Your task to perform on an android device: change the clock display to show seconds Image 0: 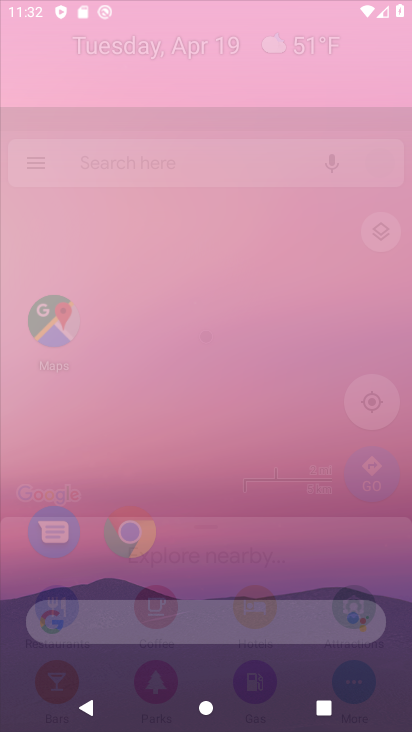
Step 0: click (216, 613)
Your task to perform on an android device: change the clock display to show seconds Image 1: 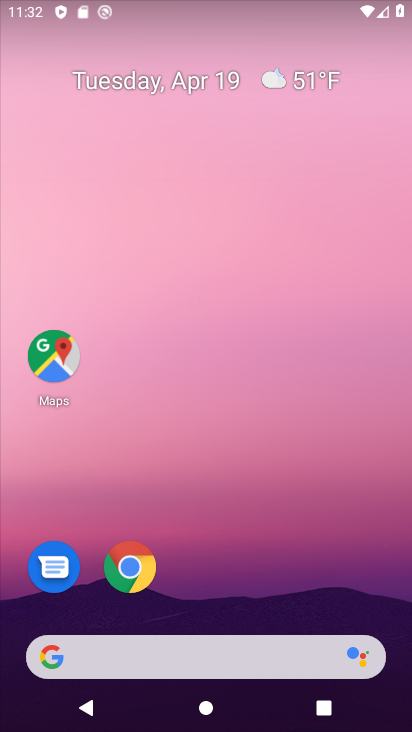
Step 1: drag from (206, 602) to (389, 9)
Your task to perform on an android device: change the clock display to show seconds Image 2: 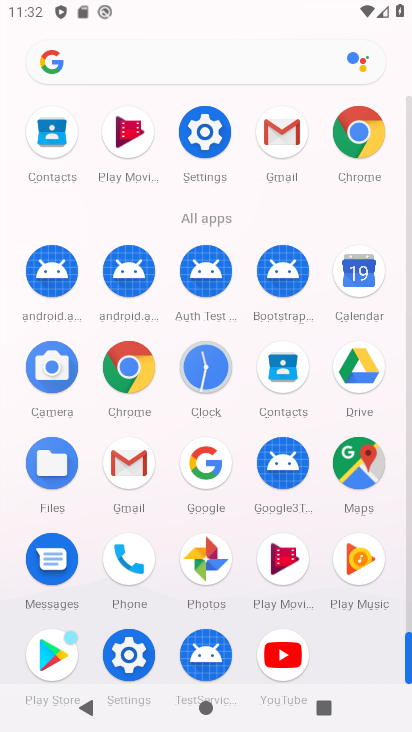
Step 2: click (209, 365)
Your task to perform on an android device: change the clock display to show seconds Image 3: 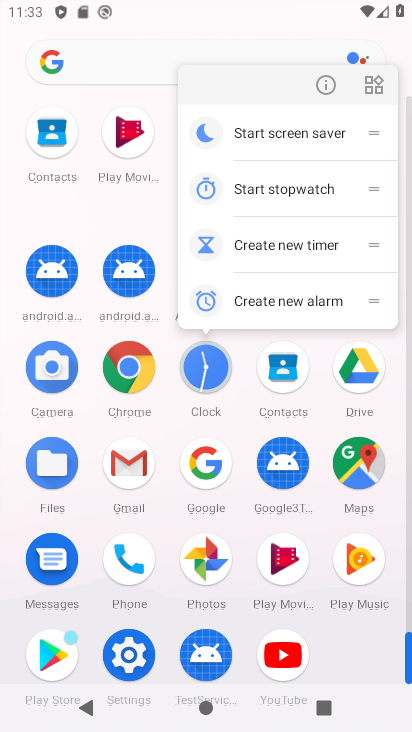
Step 3: click (209, 365)
Your task to perform on an android device: change the clock display to show seconds Image 4: 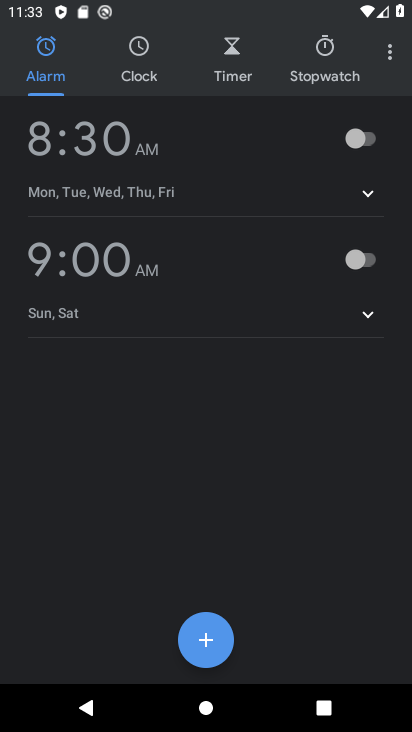
Step 4: click (393, 52)
Your task to perform on an android device: change the clock display to show seconds Image 5: 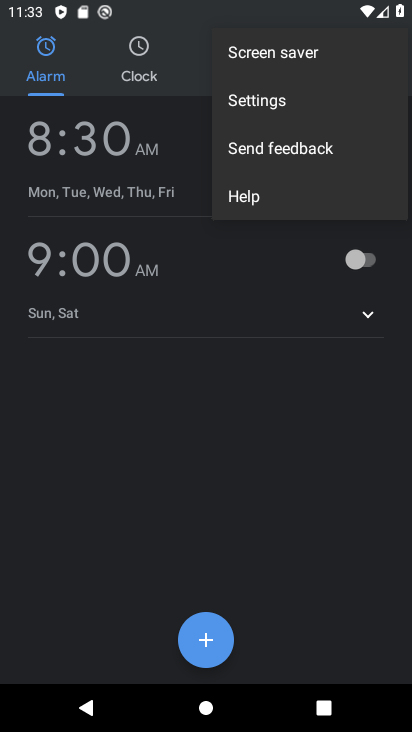
Step 5: click (280, 99)
Your task to perform on an android device: change the clock display to show seconds Image 6: 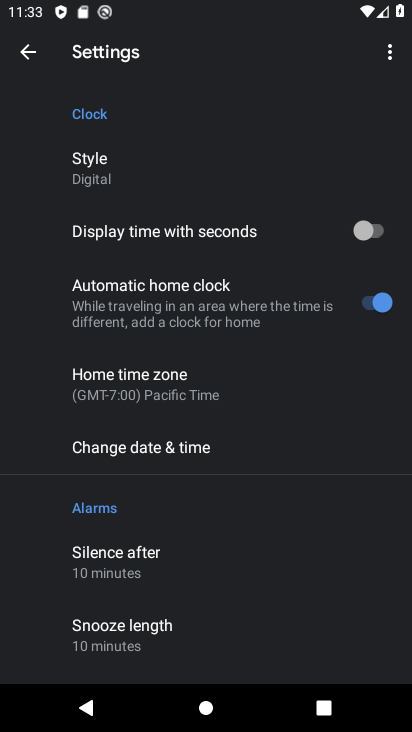
Step 6: click (101, 166)
Your task to perform on an android device: change the clock display to show seconds Image 7: 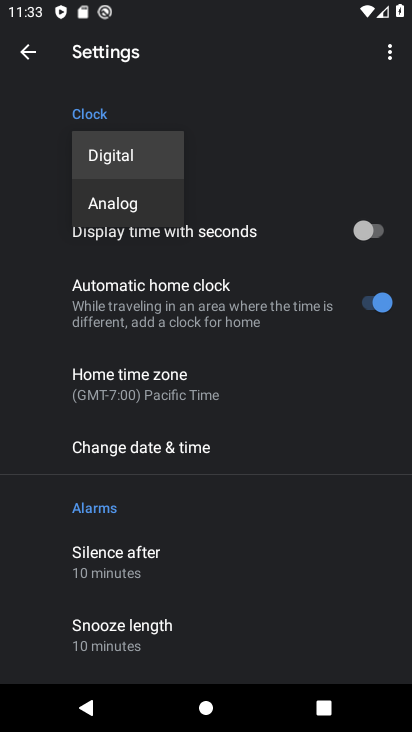
Step 7: click (151, 199)
Your task to perform on an android device: change the clock display to show seconds Image 8: 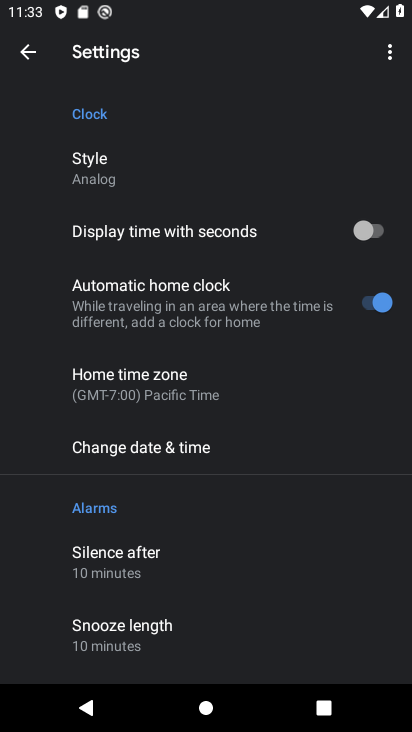
Step 8: click (369, 226)
Your task to perform on an android device: change the clock display to show seconds Image 9: 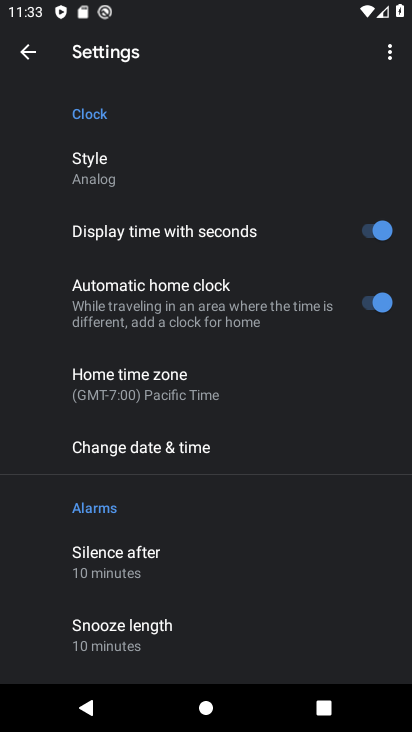
Step 9: task complete